Your task to perform on an android device: open the mobile data screen to see how much data has been used Image 0: 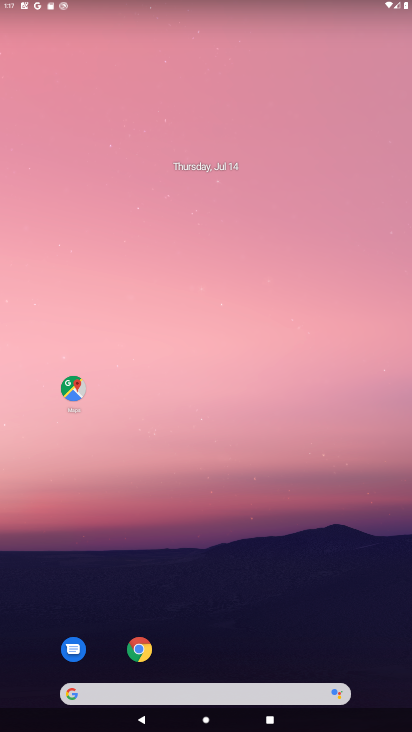
Step 0: drag from (151, 645) to (303, 110)
Your task to perform on an android device: open the mobile data screen to see how much data has been used Image 1: 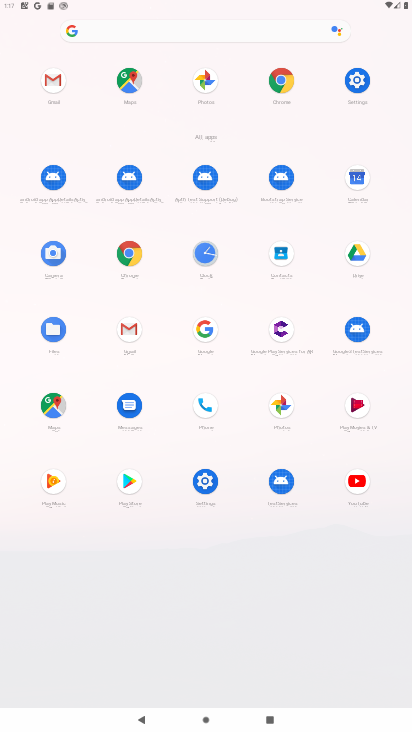
Step 1: click (365, 72)
Your task to perform on an android device: open the mobile data screen to see how much data has been used Image 2: 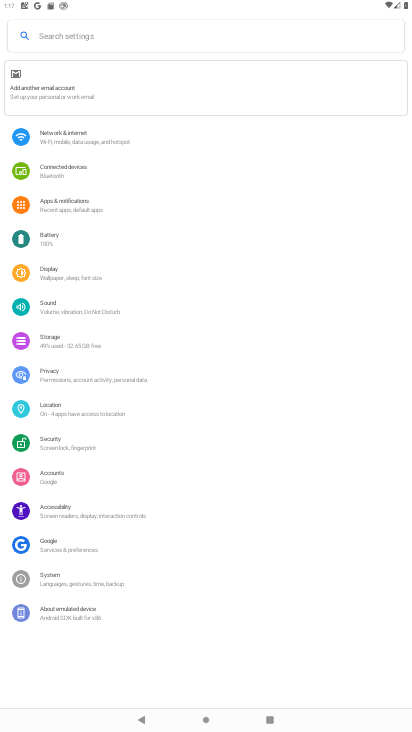
Step 2: click (82, 150)
Your task to perform on an android device: open the mobile data screen to see how much data has been used Image 3: 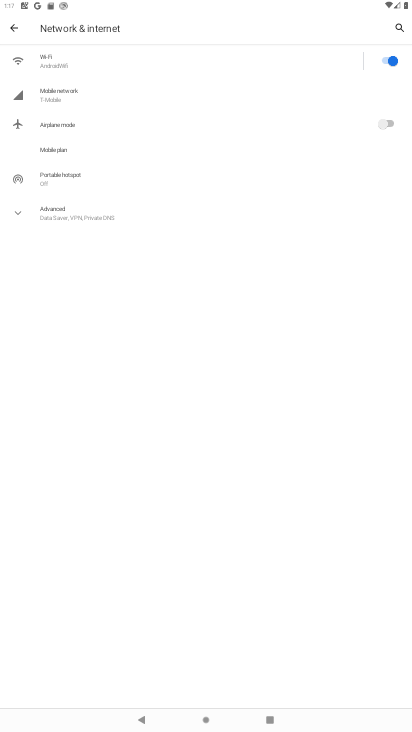
Step 3: click (70, 91)
Your task to perform on an android device: open the mobile data screen to see how much data has been used Image 4: 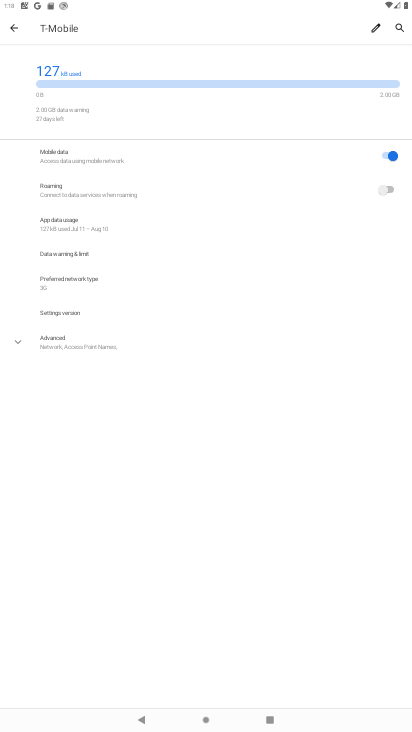
Step 4: task complete